Your task to perform on an android device: Open internet settings Image 0: 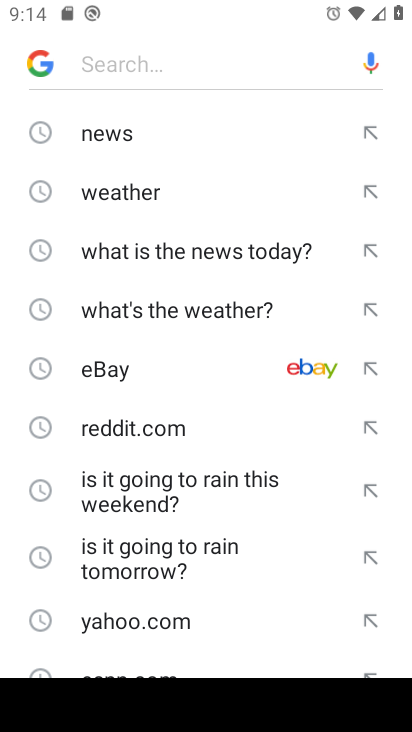
Step 0: press home button
Your task to perform on an android device: Open internet settings Image 1: 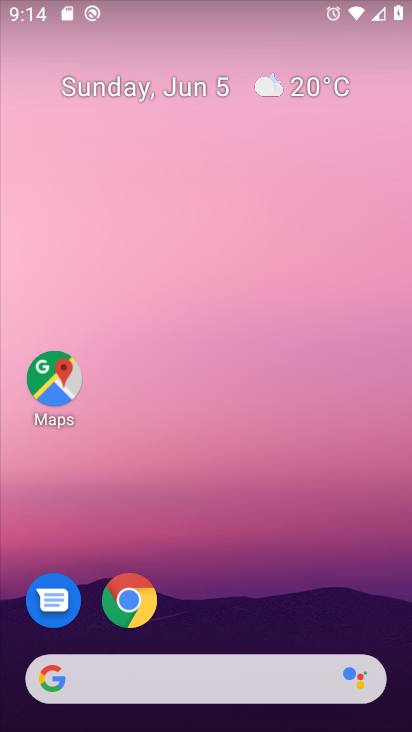
Step 1: drag from (255, 515) to (264, 31)
Your task to perform on an android device: Open internet settings Image 2: 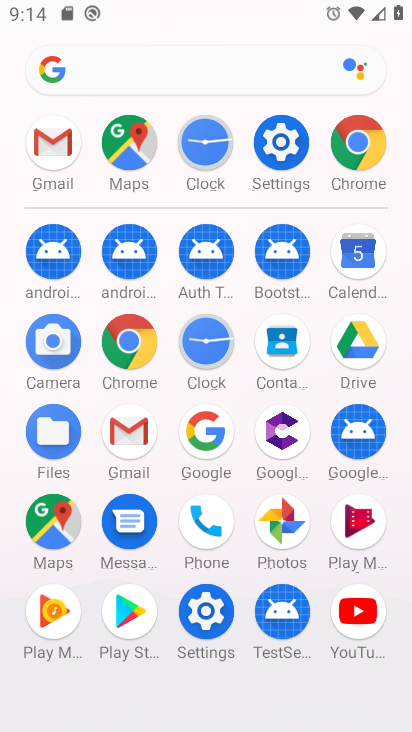
Step 2: click (289, 128)
Your task to perform on an android device: Open internet settings Image 3: 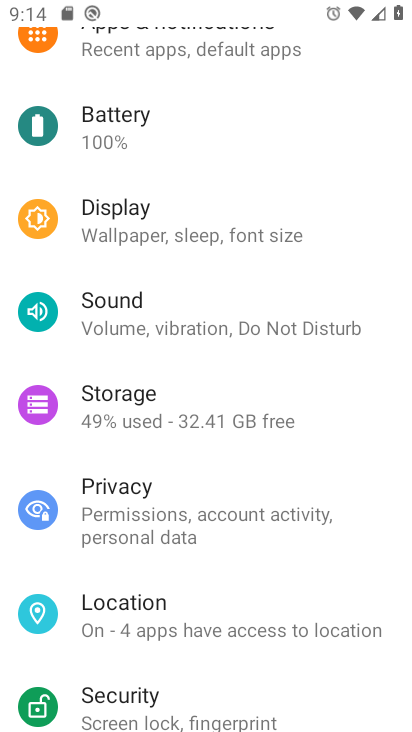
Step 3: drag from (244, 200) to (223, 551)
Your task to perform on an android device: Open internet settings Image 4: 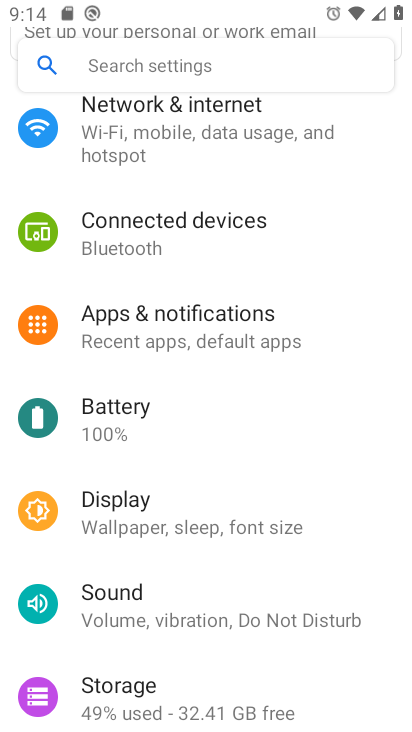
Step 4: click (198, 120)
Your task to perform on an android device: Open internet settings Image 5: 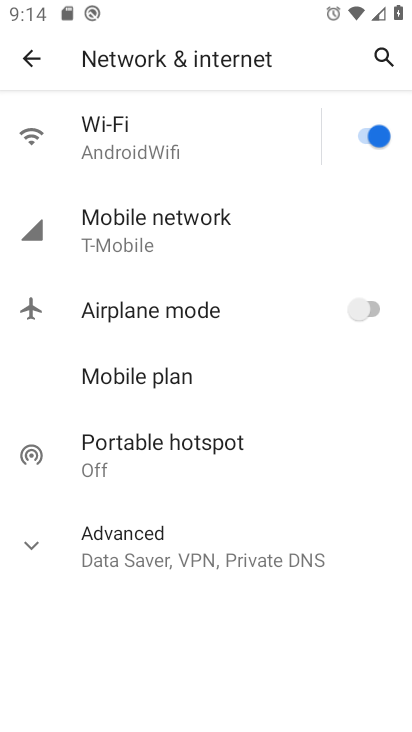
Step 5: task complete